Your task to perform on an android device: open app "Viber Messenger" (install if not already installed) Image 0: 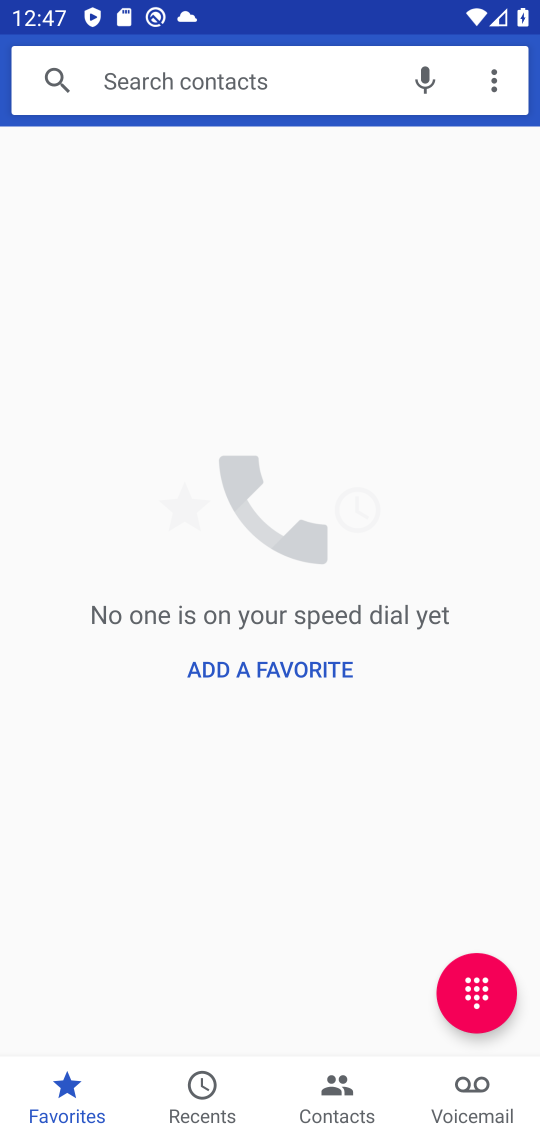
Step 0: press home button
Your task to perform on an android device: open app "Viber Messenger" (install if not already installed) Image 1: 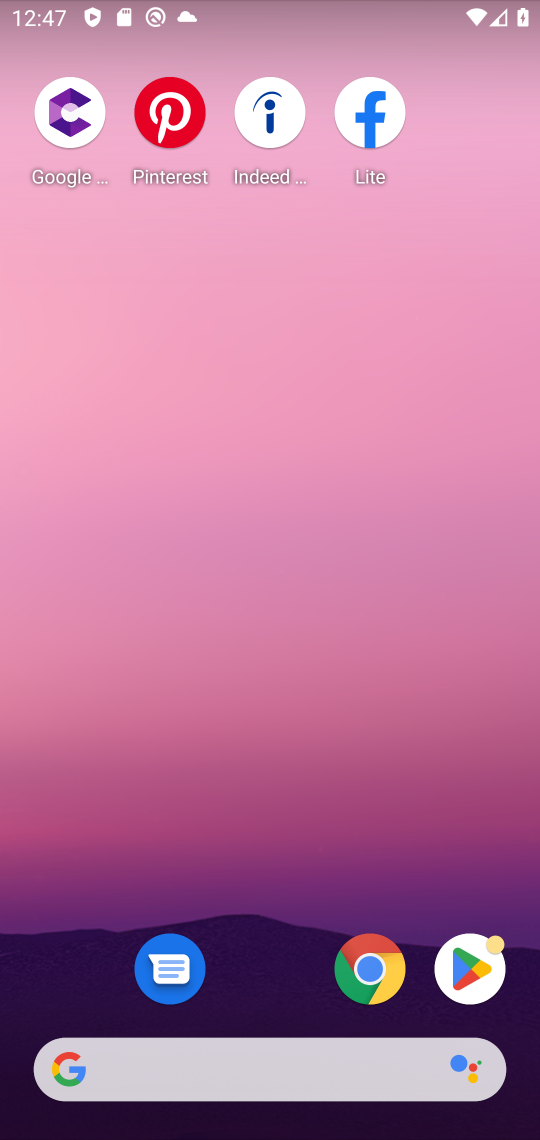
Step 1: drag from (319, 1056) to (387, 311)
Your task to perform on an android device: open app "Viber Messenger" (install if not already installed) Image 2: 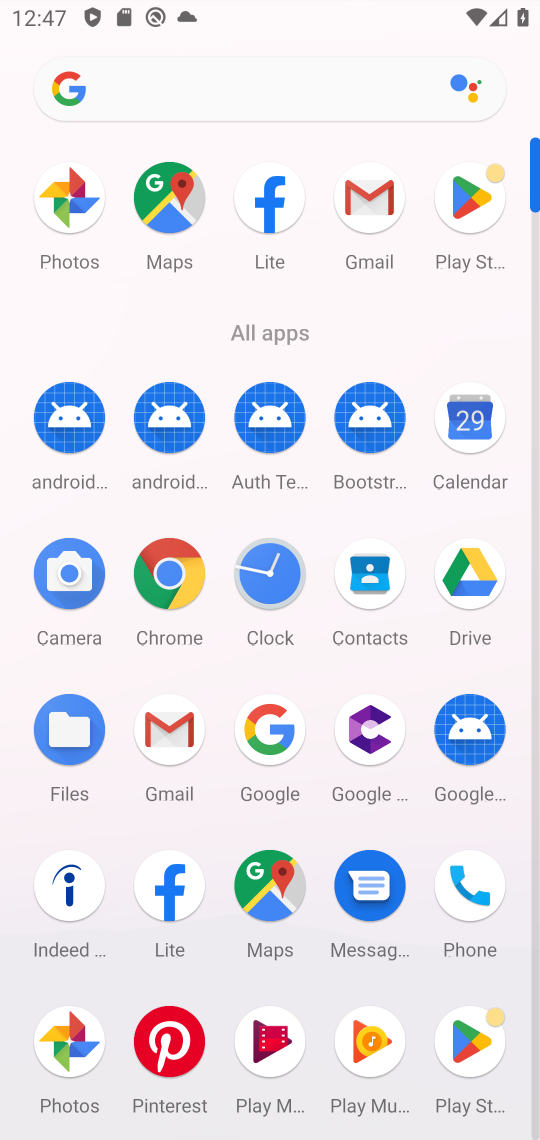
Step 2: click (481, 200)
Your task to perform on an android device: open app "Viber Messenger" (install if not already installed) Image 3: 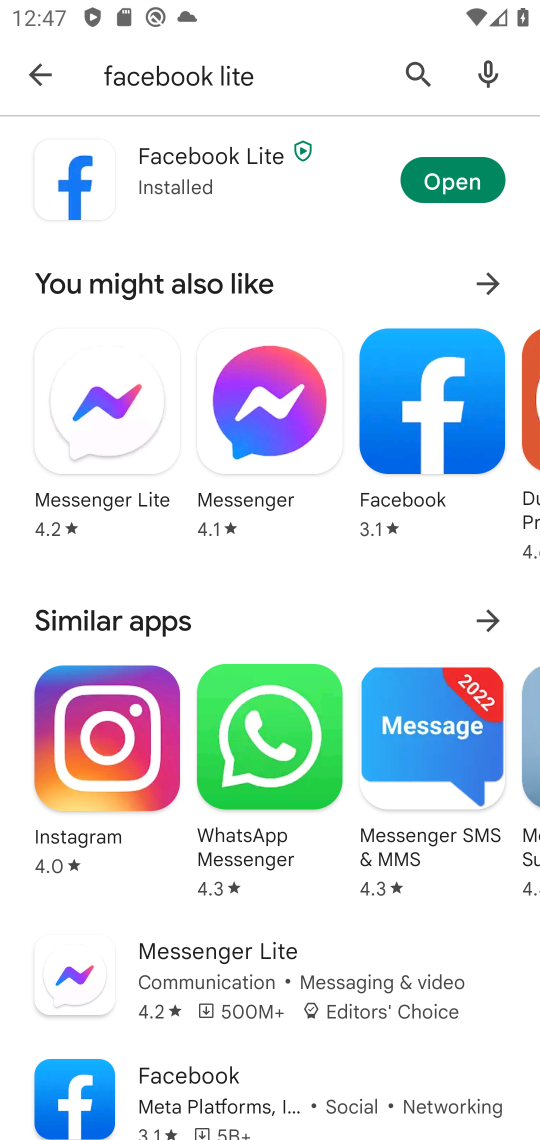
Step 3: click (411, 72)
Your task to perform on an android device: open app "Viber Messenger" (install if not already installed) Image 4: 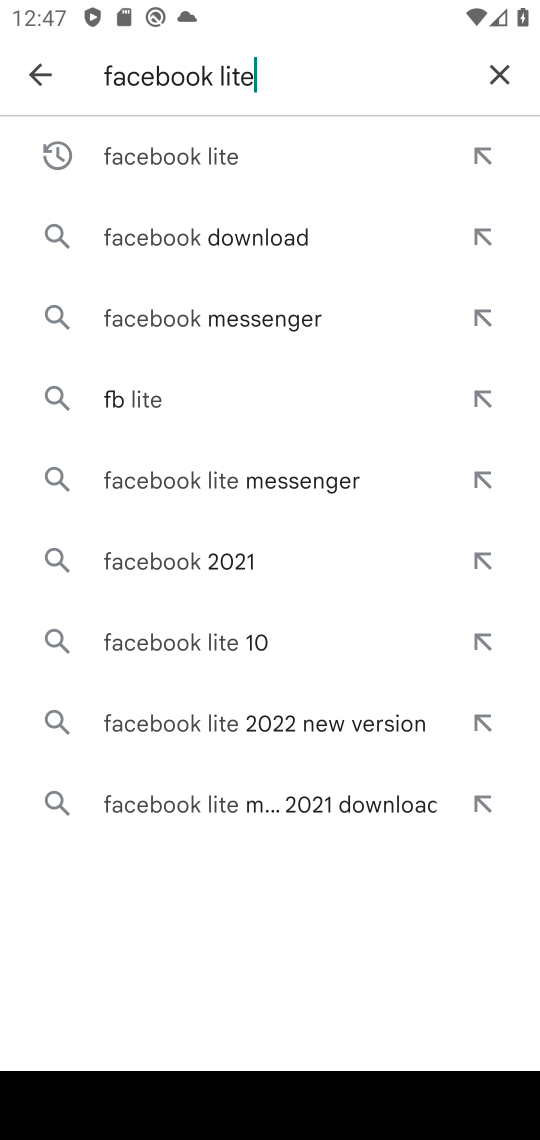
Step 4: click (498, 78)
Your task to perform on an android device: open app "Viber Messenger" (install if not already installed) Image 5: 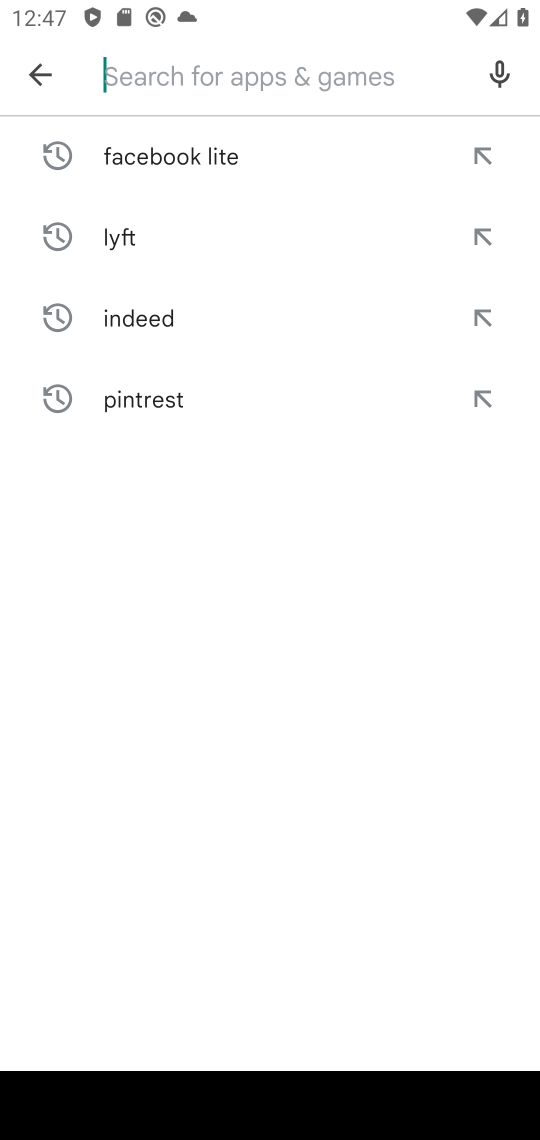
Step 5: click (227, 91)
Your task to perform on an android device: open app "Viber Messenger" (install if not already installed) Image 6: 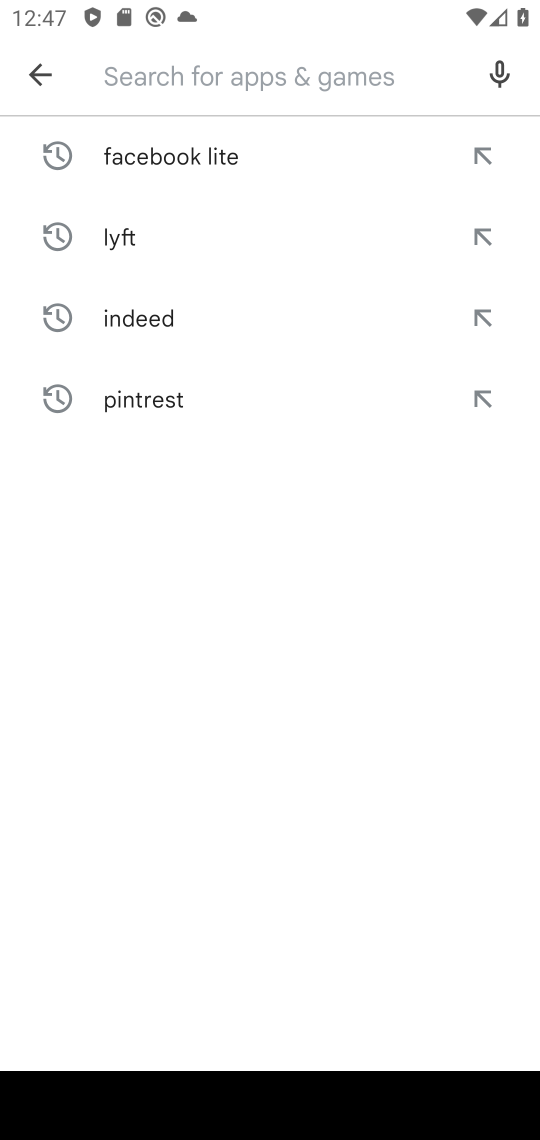
Step 6: drag from (476, 1105) to (430, 800)
Your task to perform on an android device: open app "Viber Messenger" (install if not already installed) Image 7: 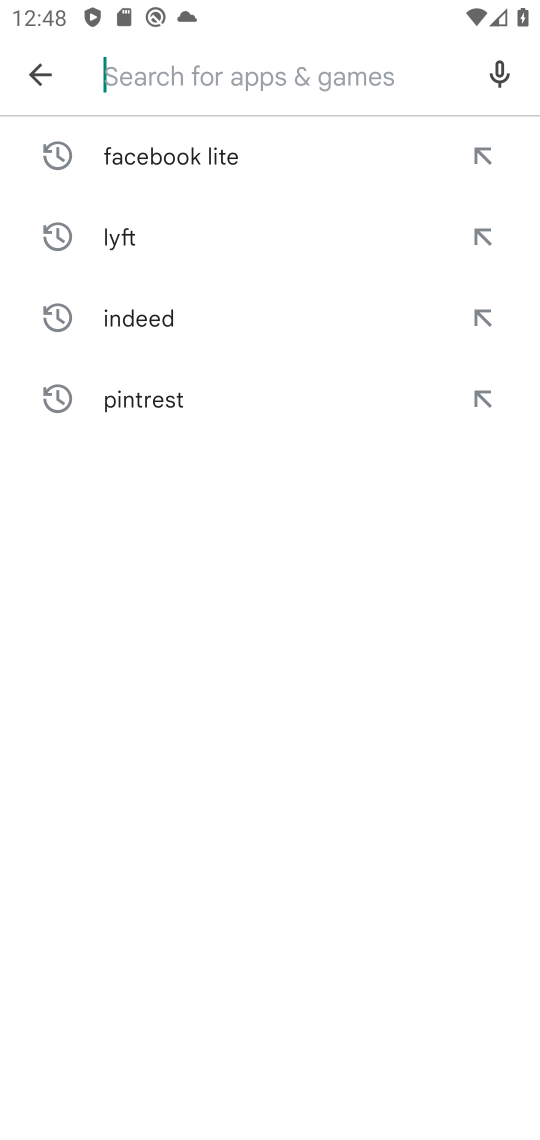
Step 7: type "viber"
Your task to perform on an android device: open app "Viber Messenger" (install if not already installed) Image 8: 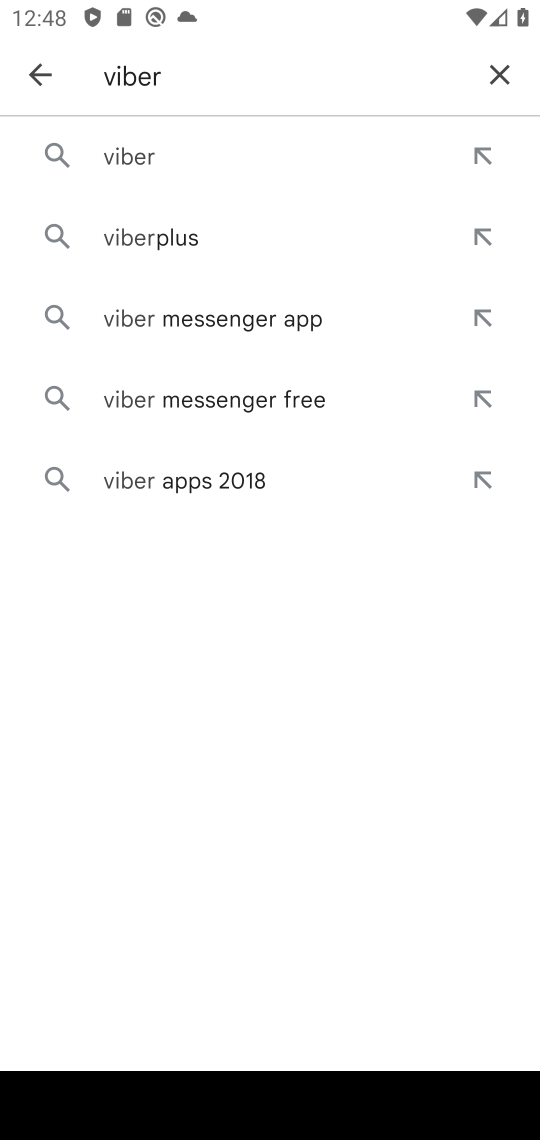
Step 8: click (201, 157)
Your task to perform on an android device: open app "Viber Messenger" (install if not already installed) Image 9: 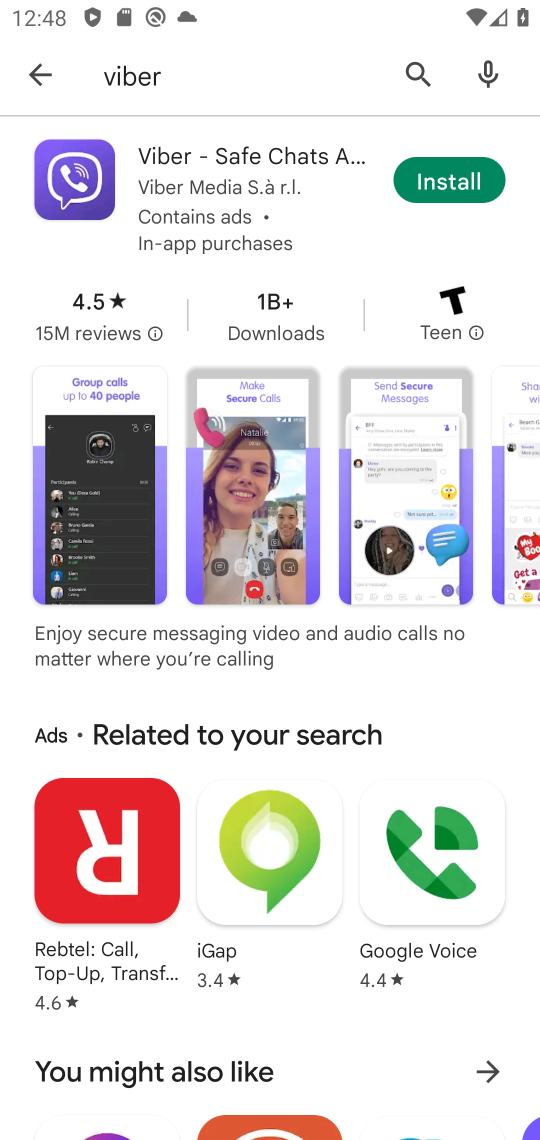
Step 9: click (452, 190)
Your task to perform on an android device: open app "Viber Messenger" (install if not already installed) Image 10: 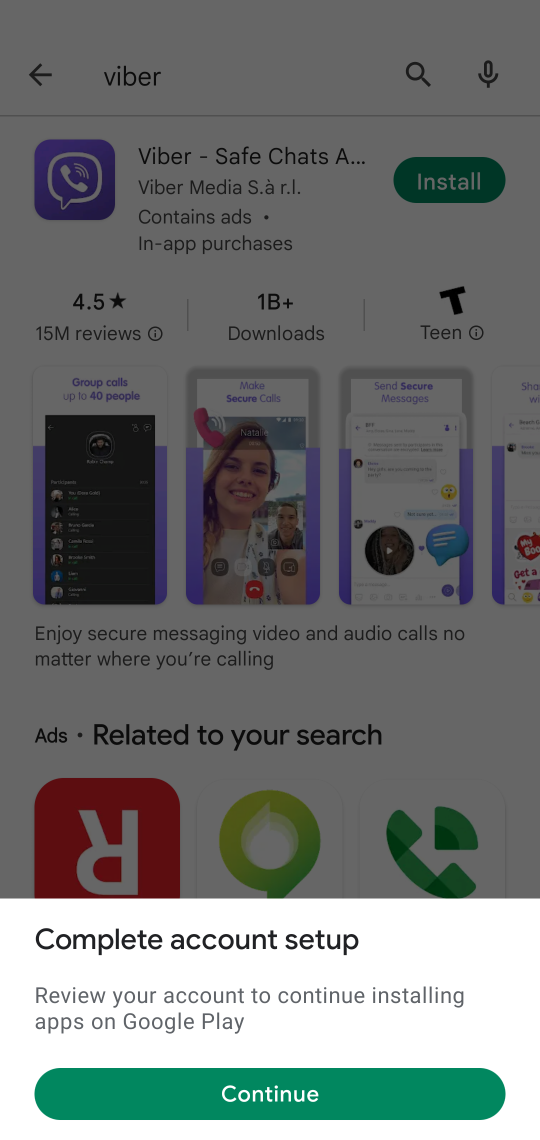
Step 10: click (327, 1095)
Your task to perform on an android device: open app "Viber Messenger" (install if not already installed) Image 11: 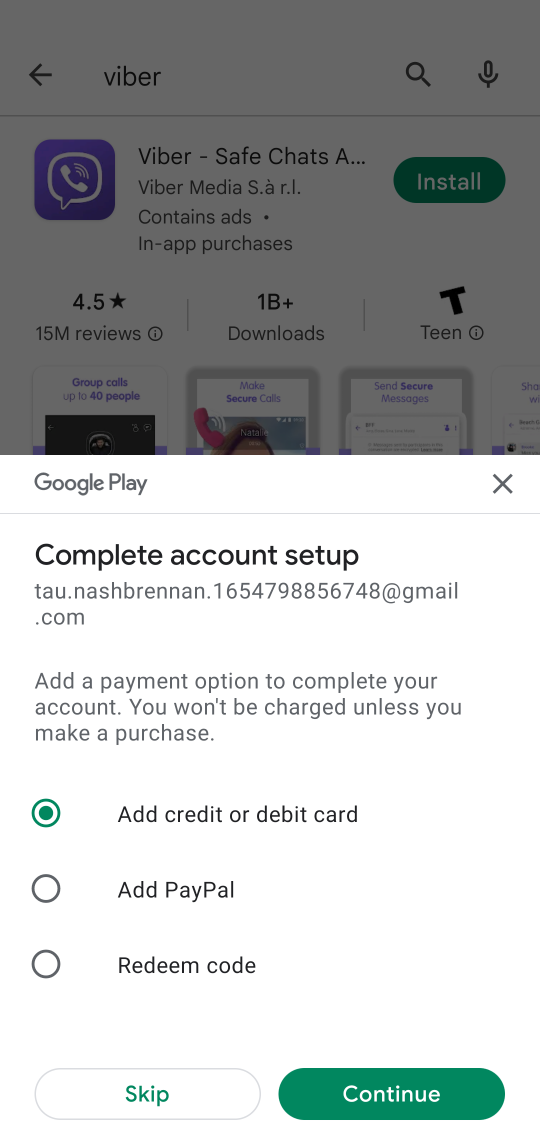
Step 11: click (143, 1083)
Your task to perform on an android device: open app "Viber Messenger" (install if not already installed) Image 12: 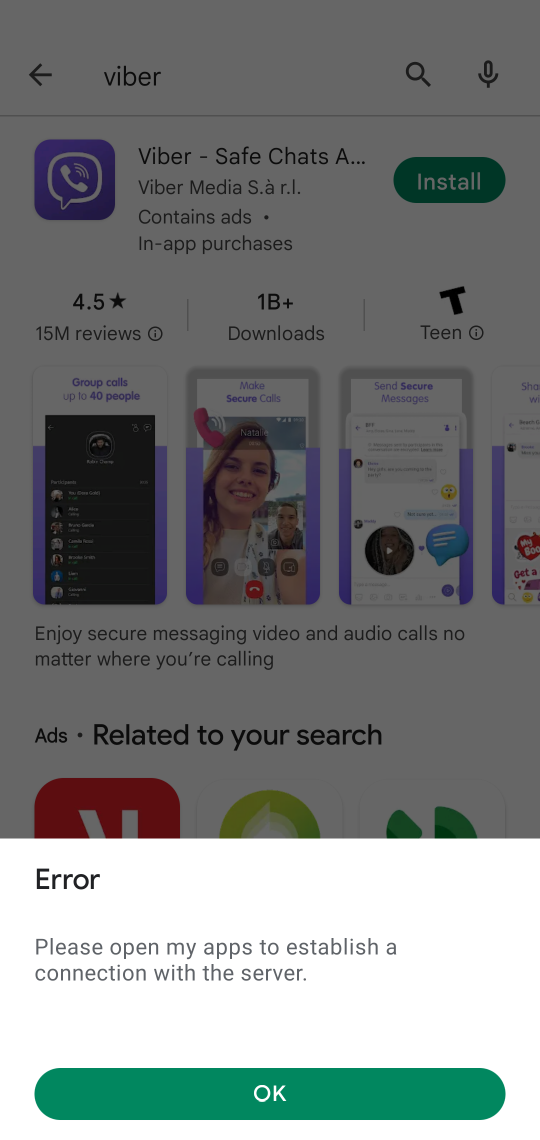
Step 12: click (253, 1108)
Your task to perform on an android device: open app "Viber Messenger" (install if not already installed) Image 13: 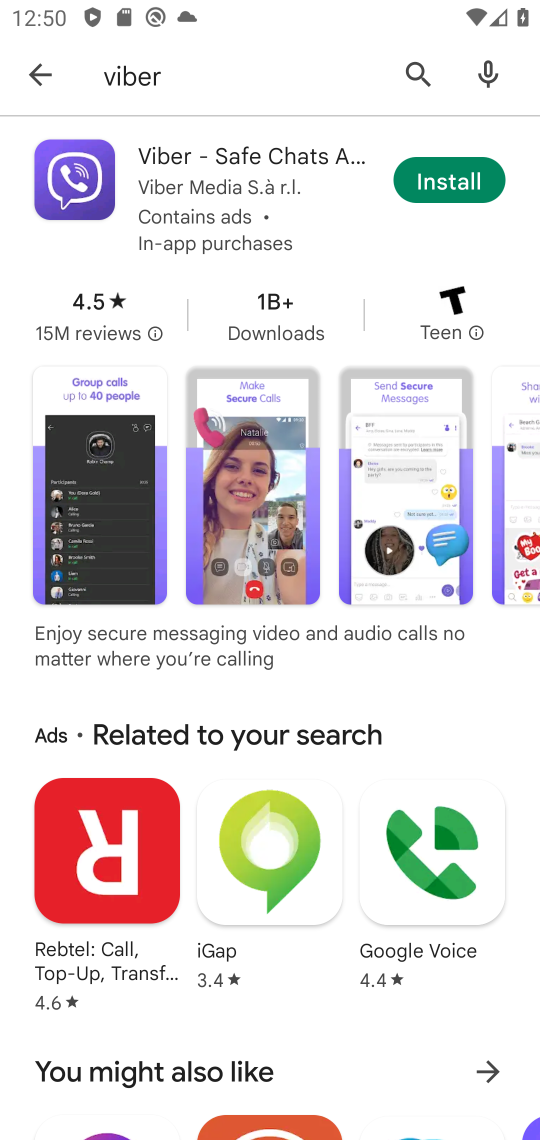
Step 13: click (447, 186)
Your task to perform on an android device: open app "Viber Messenger" (install if not already installed) Image 14: 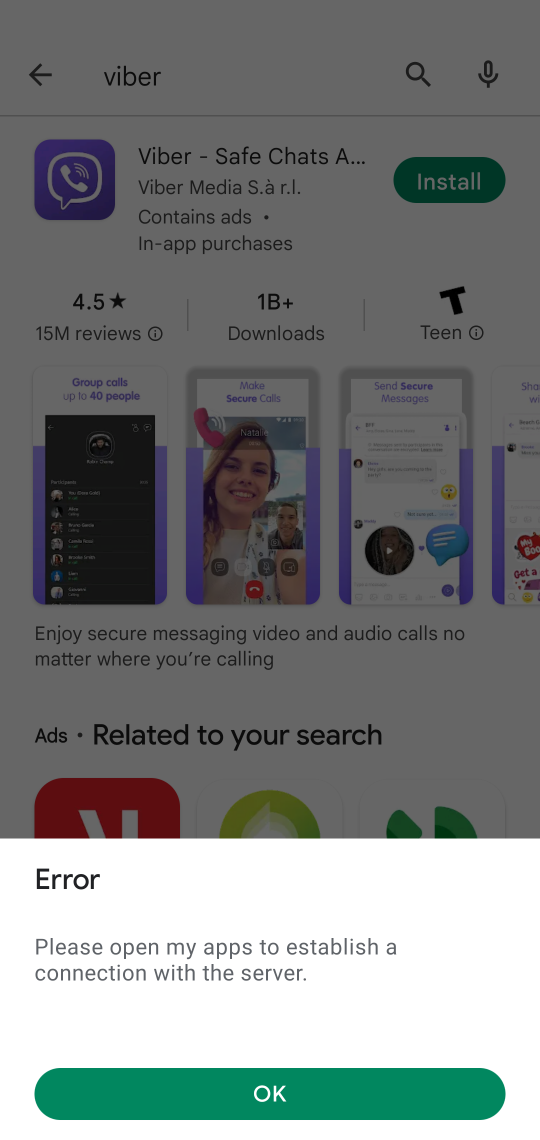
Step 14: click (295, 1106)
Your task to perform on an android device: open app "Viber Messenger" (install if not already installed) Image 15: 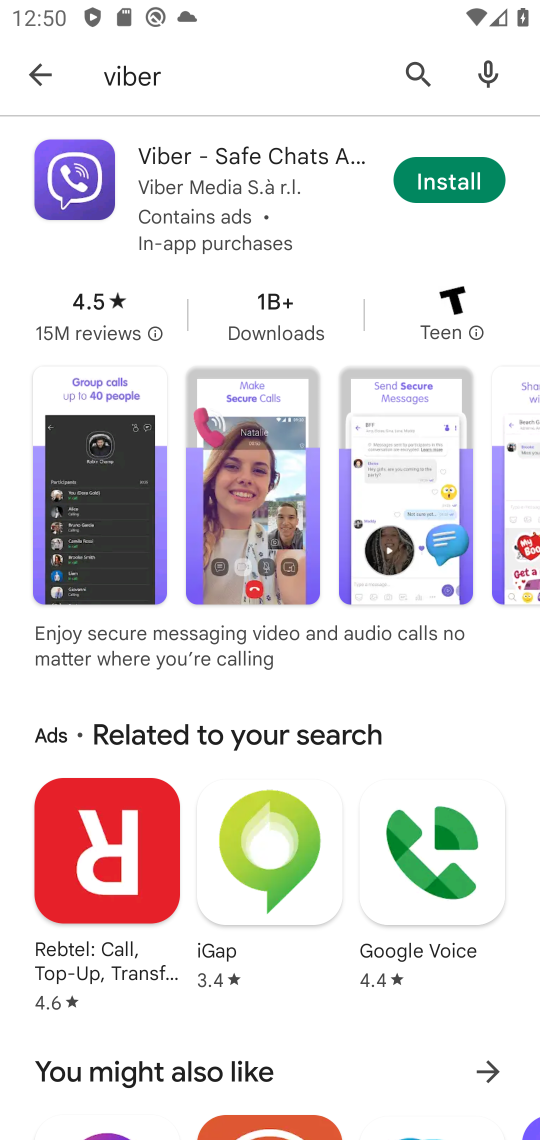
Step 15: click (453, 182)
Your task to perform on an android device: open app "Viber Messenger" (install if not already installed) Image 16: 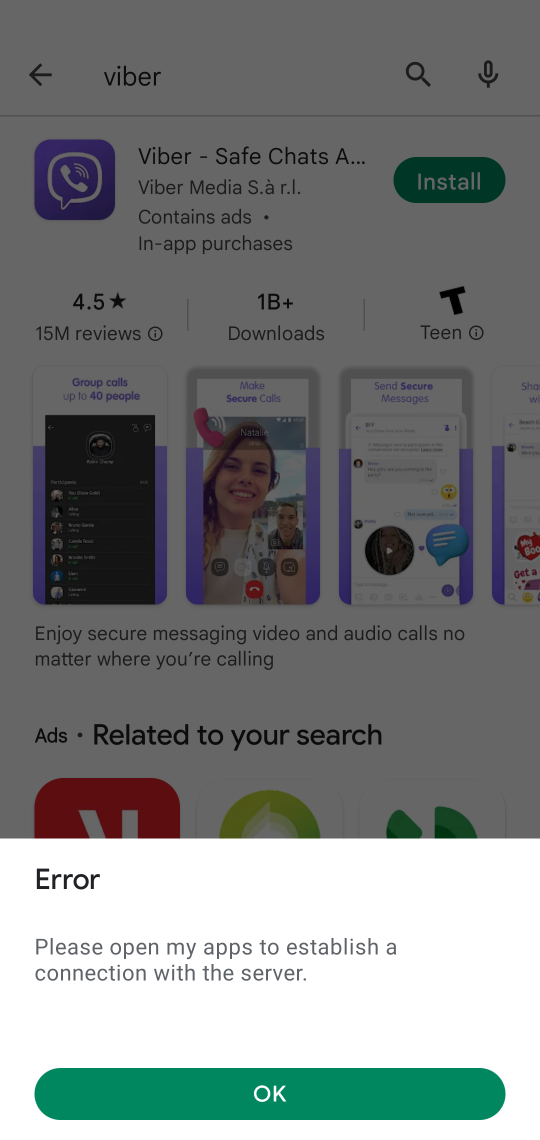
Step 16: task complete